Your task to perform on an android device: toggle airplane mode Image 0: 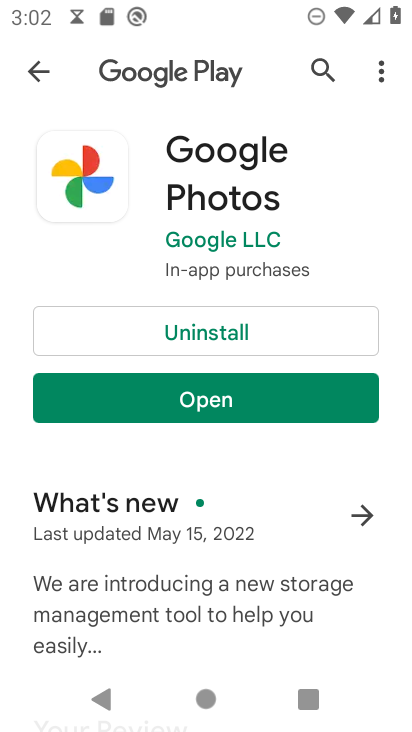
Step 0: drag from (246, 17) to (278, 549)
Your task to perform on an android device: toggle airplane mode Image 1: 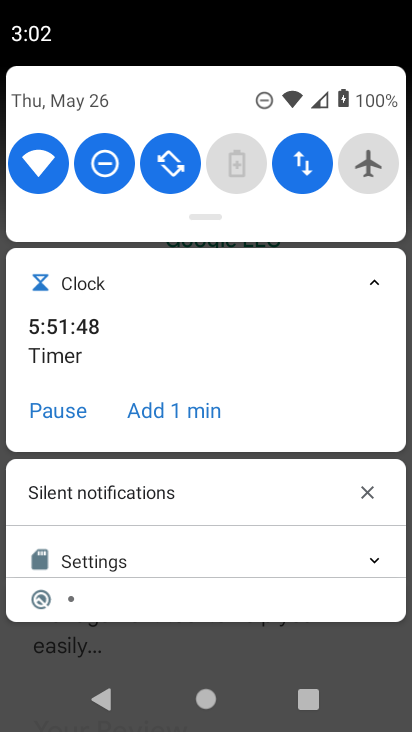
Step 1: click (377, 157)
Your task to perform on an android device: toggle airplane mode Image 2: 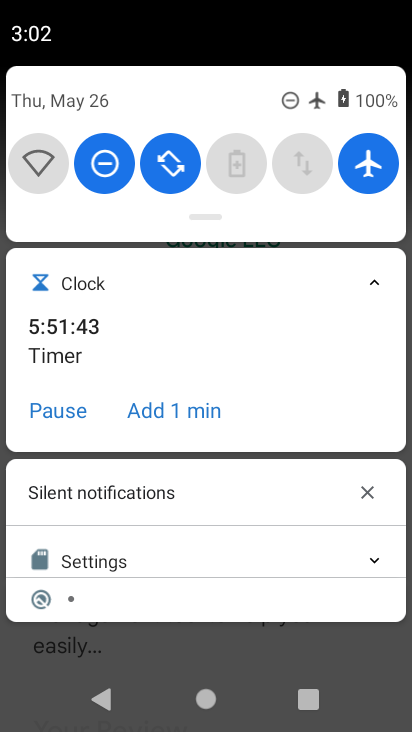
Step 2: task complete